Your task to perform on an android device: Open Android settings Image 0: 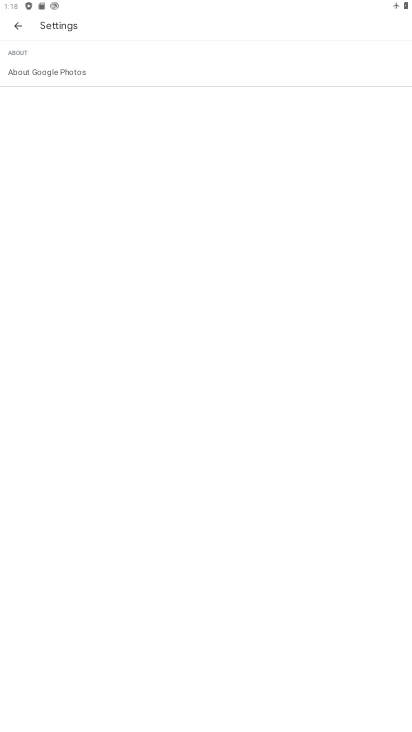
Step 0: press home button
Your task to perform on an android device: Open Android settings Image 1: 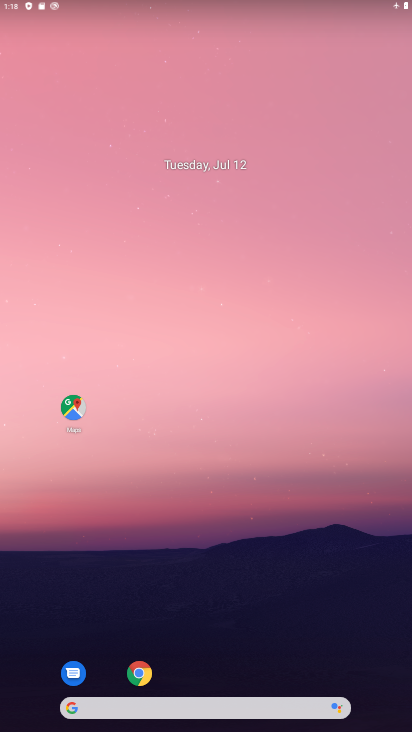
Step 1: drag from (182, 539) to (199, 351)
Your task to perform on an android device: Open Android settings Image 2: 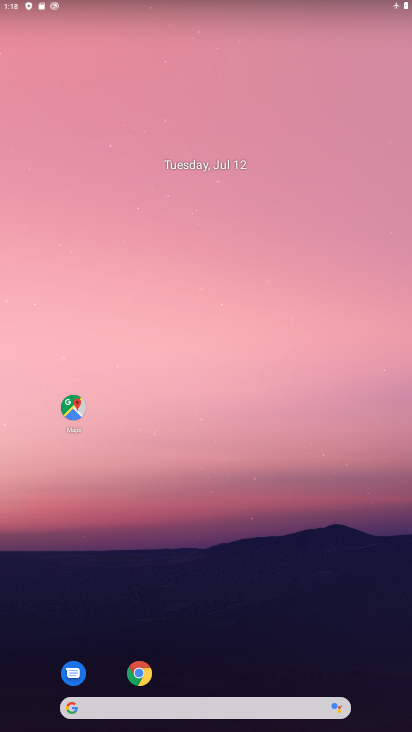
Step 2: drag from (167, 668) to (193, 208)
Your task to perform on an android device: Open Android settings Image 3: 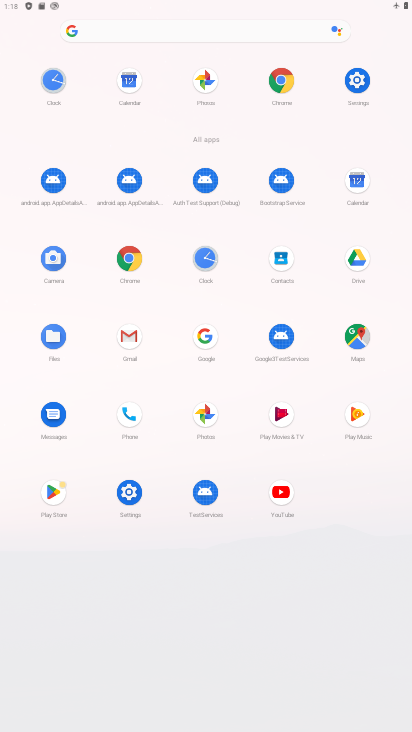
Step 3: click (359, 85)
Your task to perform on an android device: Open Android settings Image 4: 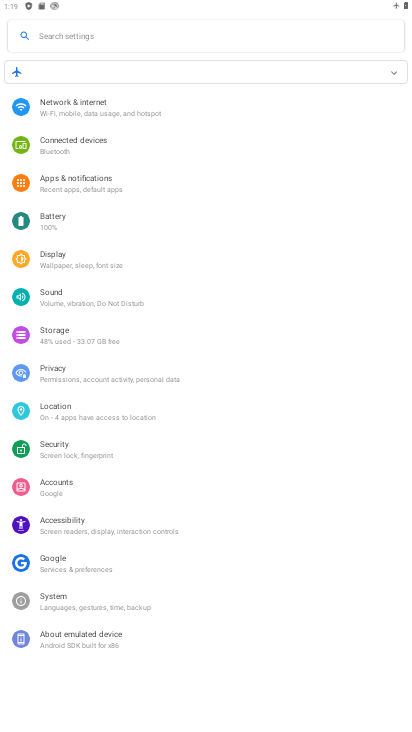
Step 4: task complete